Your task to perform on an android device: turn on javascript in the chrome app Image 0: 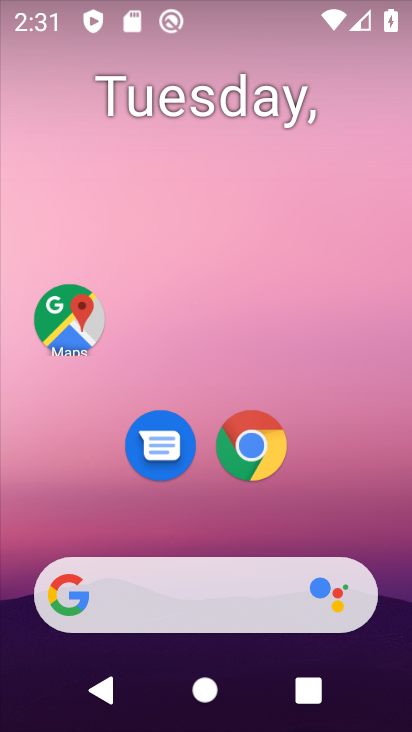
Step 0: click (57, 320)
Your task to perform on an android device: turn on javascript in the chrome app Image 1: 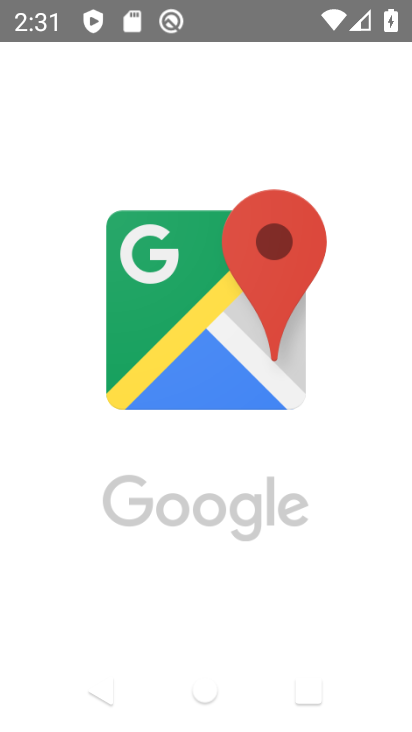
Step 1: press home button
Your task to perform on an android device: turn on javascript in the chrome app Image 2: 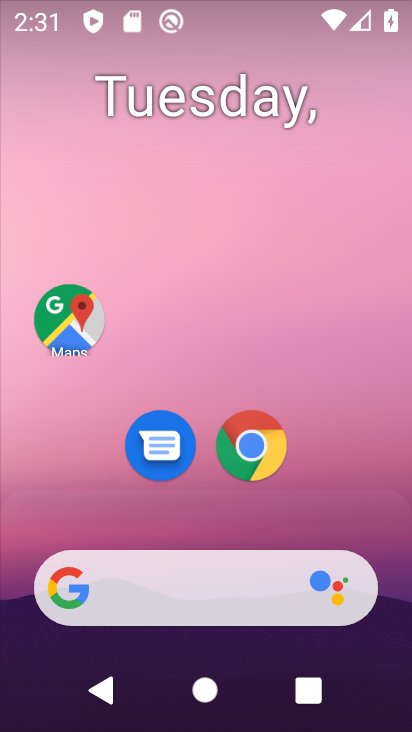
Step 2: click (246, 438)
Your task to perform on an android device: turn on javascript in the chrome app Image 3: 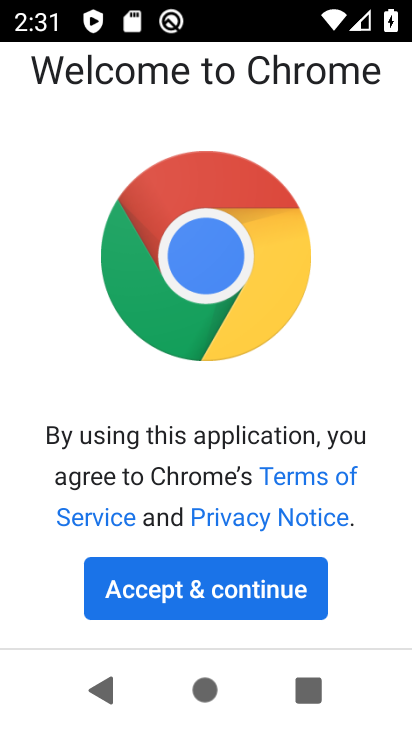
Step 3: click (241, 596)
Your task to perform on an android device: turn on javascript in the chrome app Image 4: 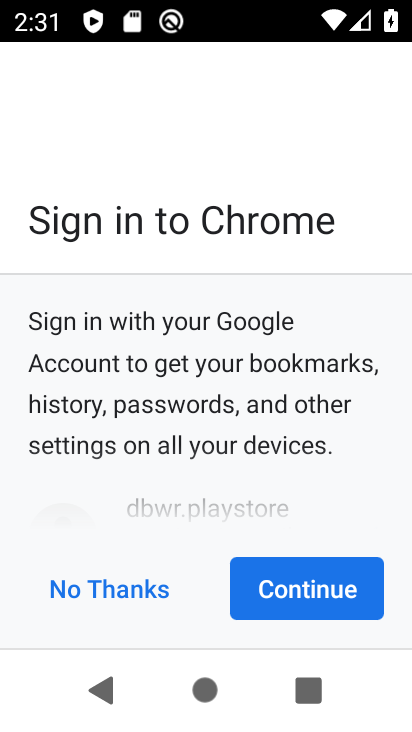
Step 4: click (258, 588)
Your task to perform on an android device: turn on javascript in the chrome app Image 5: 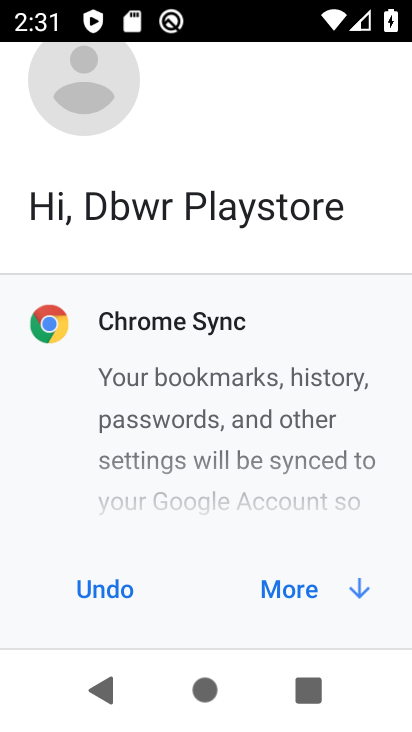
Step 5: click (305, 590)
Your task to perform on an android device: turn on javascript in the chrome app Image 6: 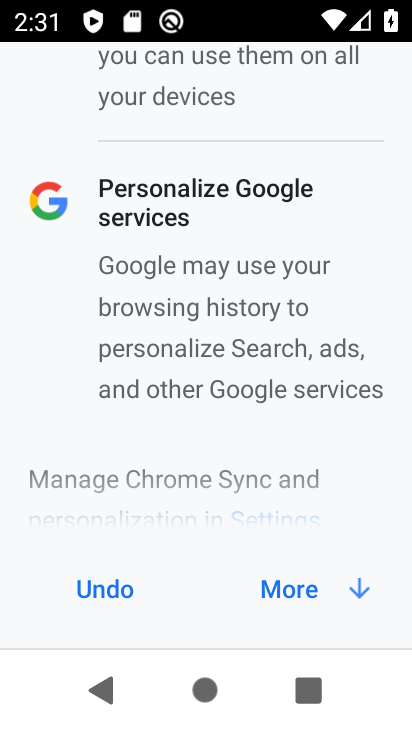
Step 6: click (305, 590)
Your task to perform on an android device: turn on javascript in the chrome app Image 7: 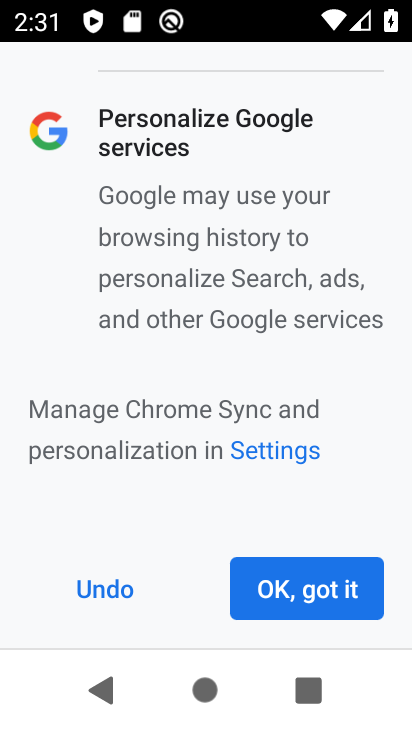
Step 7: click (309, 586)
Your task to perform on an android device: turn on javascript in the chrome app Image 8: 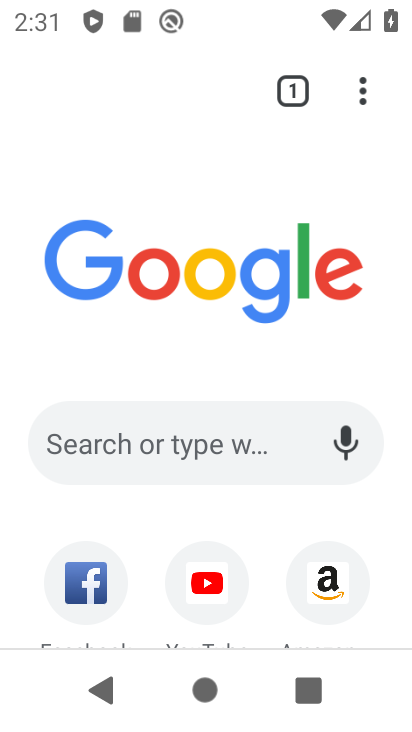
Step 8: click (357, 92)
Your task to perform on an android device: turn on javascript in the chrome app Image 9: 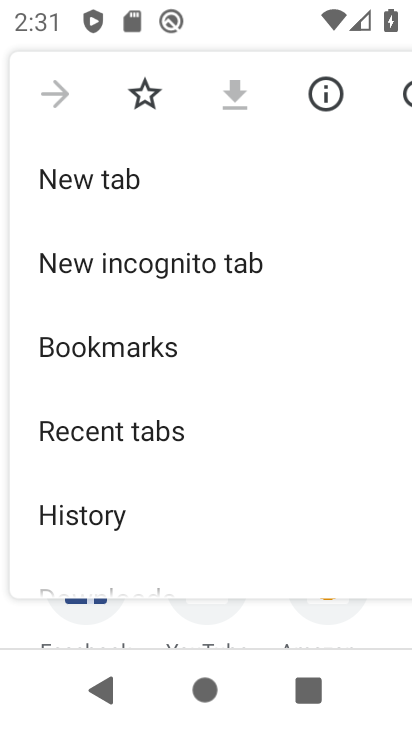
Step 9: drag from (278, 428) to (266, 382)
Your task to perform on an android device: turn on javascript in the chrome app Image 10: 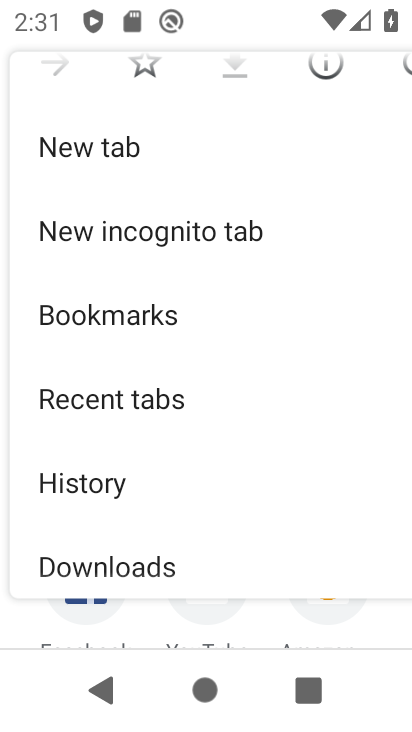
Step 10: drag from (297, 483) to (296, 442)
Your task to perform on an android device: turn on javascript in the chrome app Image 11: 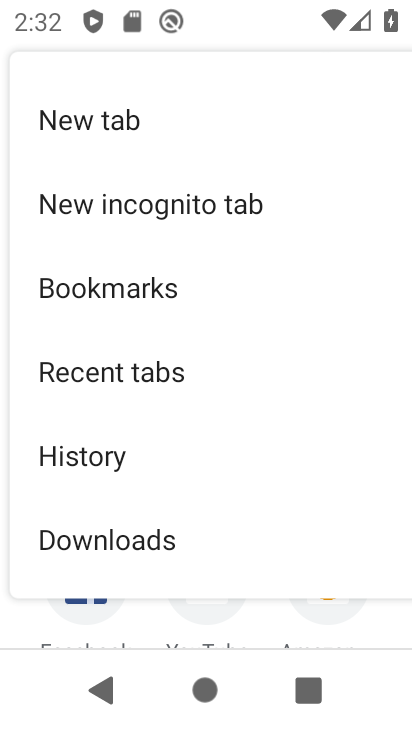
Step 11: click (278, 379)
Your task to perform on an android device: turn on javascript in the chrome app Image 12: 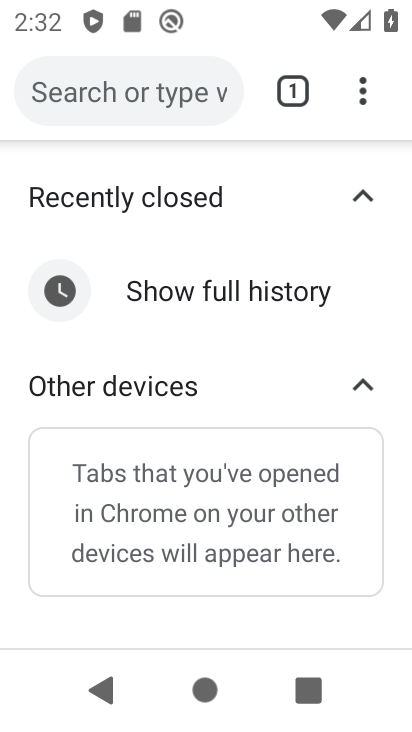
Step 12: click (361, 84)
Your task to perform on an android device: turn on javascript in the chrome app Image 13: 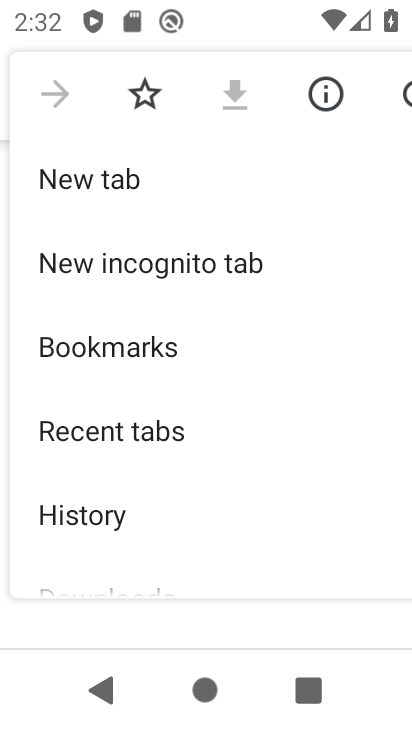
Step 13: drag from (249, 548) to (241, 361)
Your task to perform on an android device: turn on javascript in the chrome app Image 14: 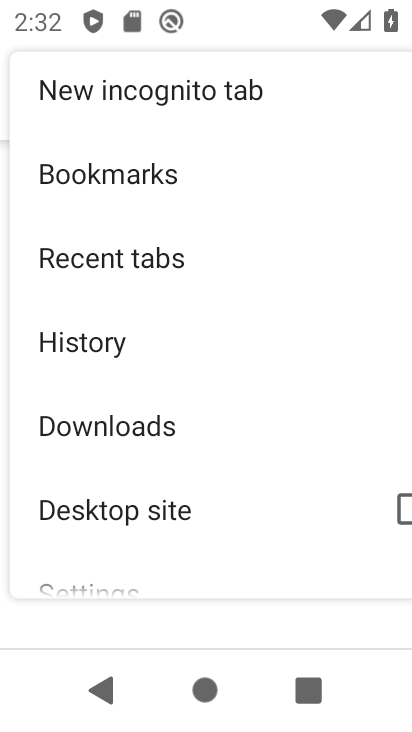
Step 14: drag from (217, 573) to (206, 458)
Your task to perform on an android device: turn on javascript in the chrome app Image 15: 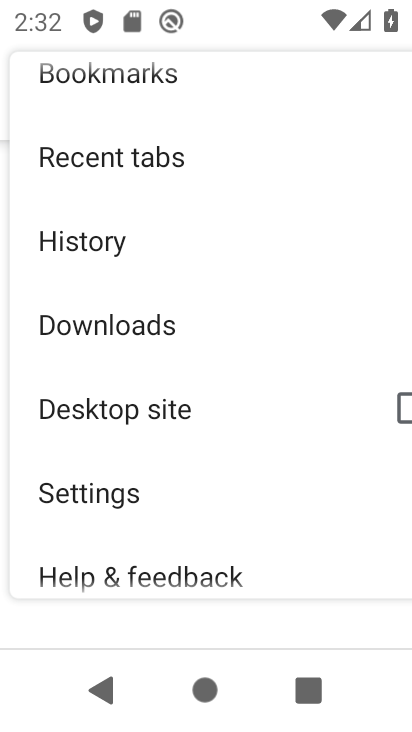
Step 15: click (86, 494)
Your task to perform on an android device: turn on javascript in the chrome app Image 16: 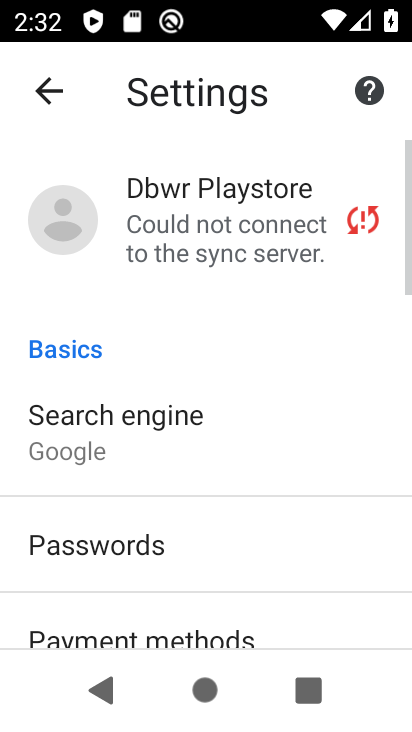
Step 16: drag from (293, 624) to (275, 462)
Your task to perform on an android device: turn on javascript in the chrome app Image 17: 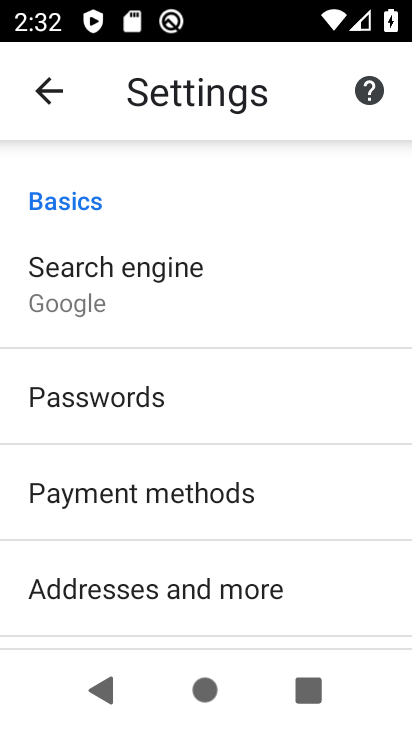
Step 17: drag from (325, 589) to (325, 383)
Your task to perform on an android device: turn on javascript in the chrome app Image 18: 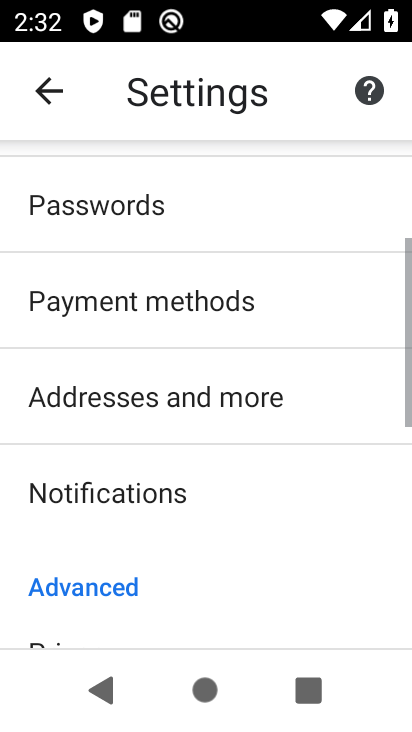
Step 18: drag from (296, 605) to (276, 501)
Your task to perform on an android device: turn on javascript in the chrome app Image 19: 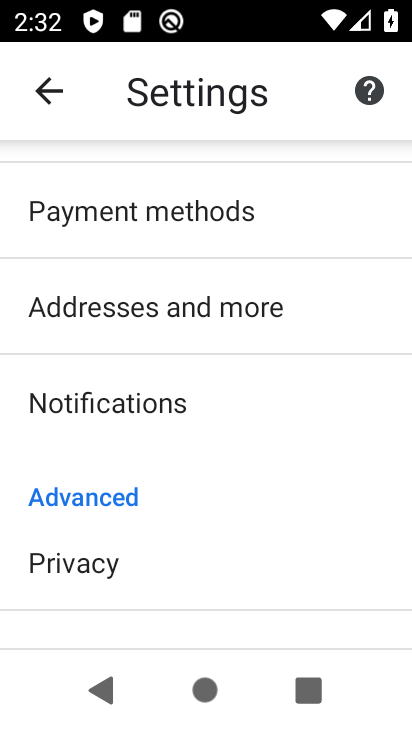
Step 19: drag from (234, 602) to (246, 454)
Your task to perform on an android device: turn on javascript in the chrome app Image 20: 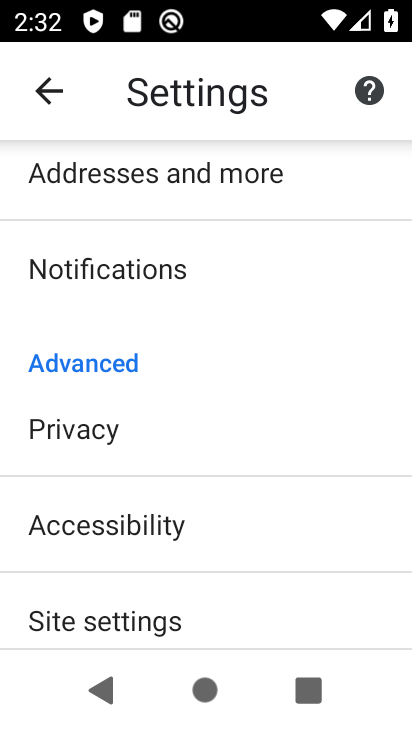
Step 20: click (143, 618)
Your task to perform on an android device: turn on javascript in the chrome app Image 21: 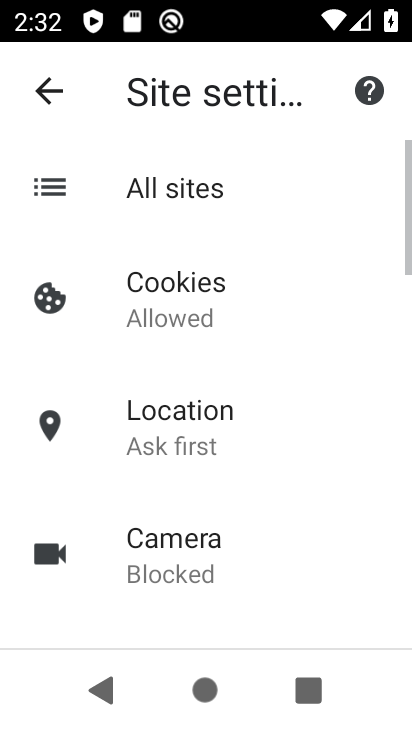
Step 21: drag from (289, 545) to (275, 378)
Your task to perform on an android device: turn on javascript in the chrome app Image 22: 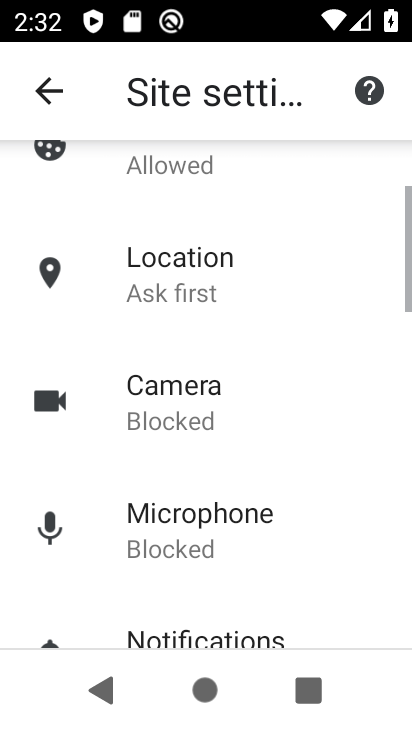
Step 22: drag from (314, 577) to (308, 487)
Your task to perform on an android device: turn on javascript in the chrome app Image 23: 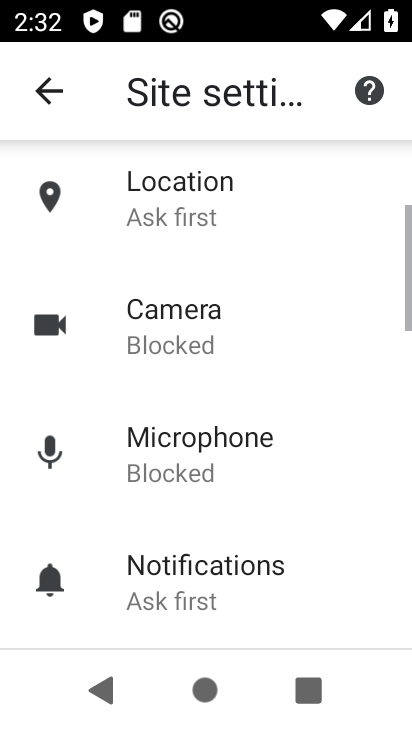
Step 23: drag from (306, 626) to (300, 497)
Your task to perform on an android device: turn on javascript in the chrome app Image 24: 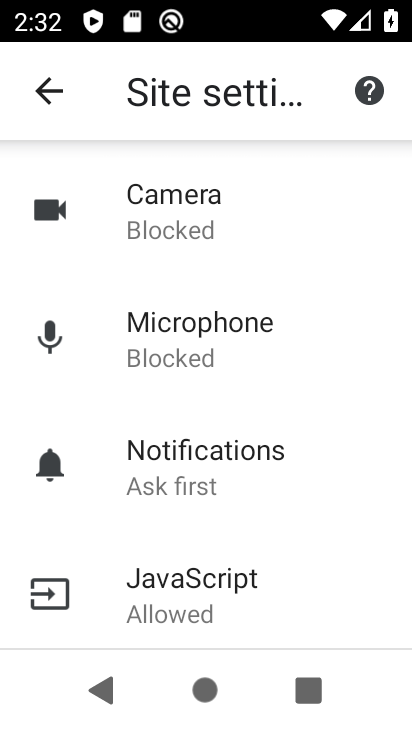
Step 24: click (204, 581)
Your task to perform on an android device: turn on javascript in the chrome app Image 25: 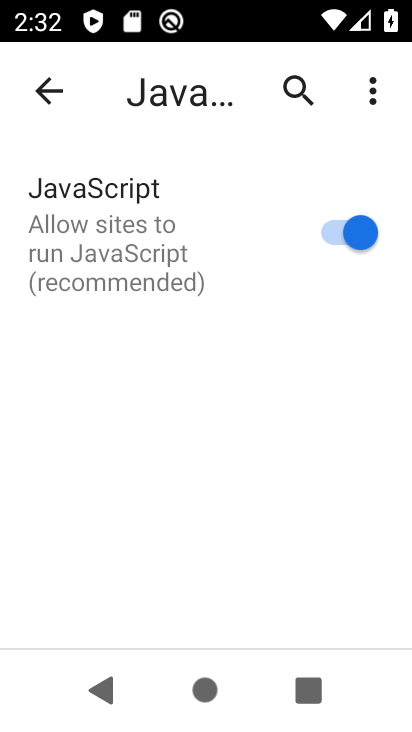
Step 25: task complete